Your task to perform on an android device: uninstall "Microsoft Excel" Image 0: 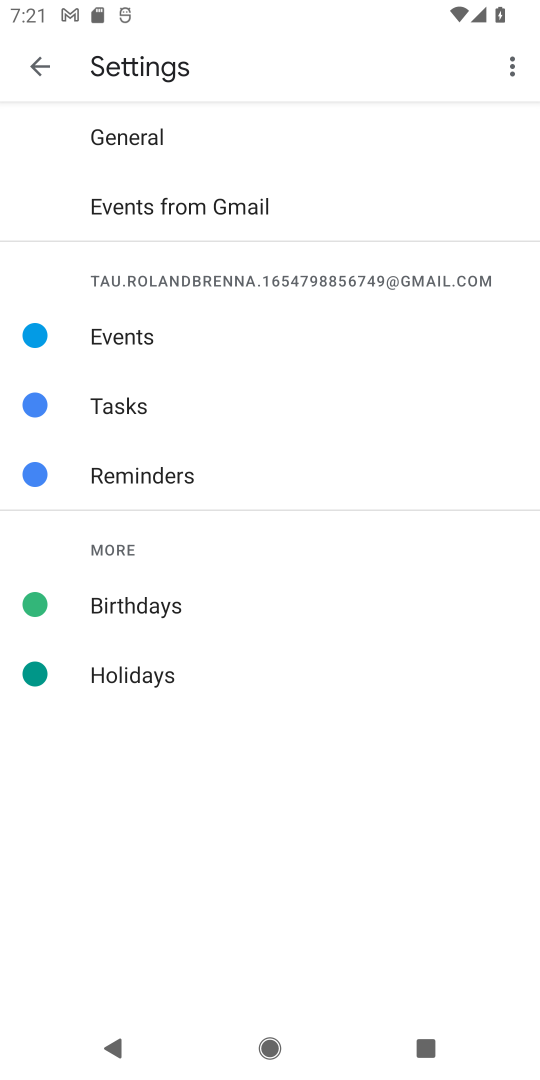
Step 0: press home button
Your task to perform on an android device: uninstall "Microsoft Excel" Image 1: 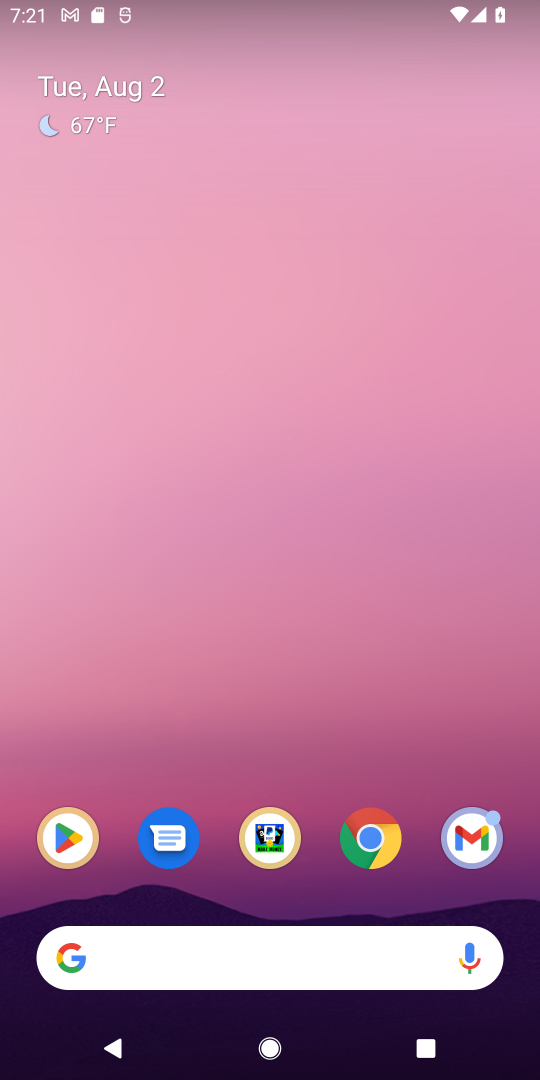
Step 1: click (55, 836)
Your task to perform on an android device: uninstall "Microsoft Excel" Image 2: 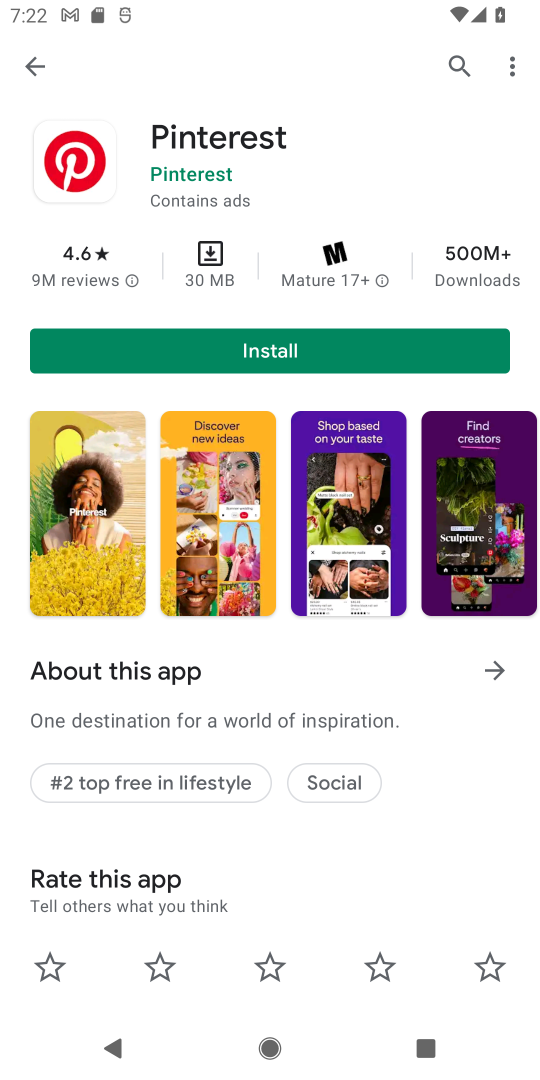
Step 2: click (449, 51)
Your task to perform on an android device: uninstall "Microsoft Excel" Image 3: 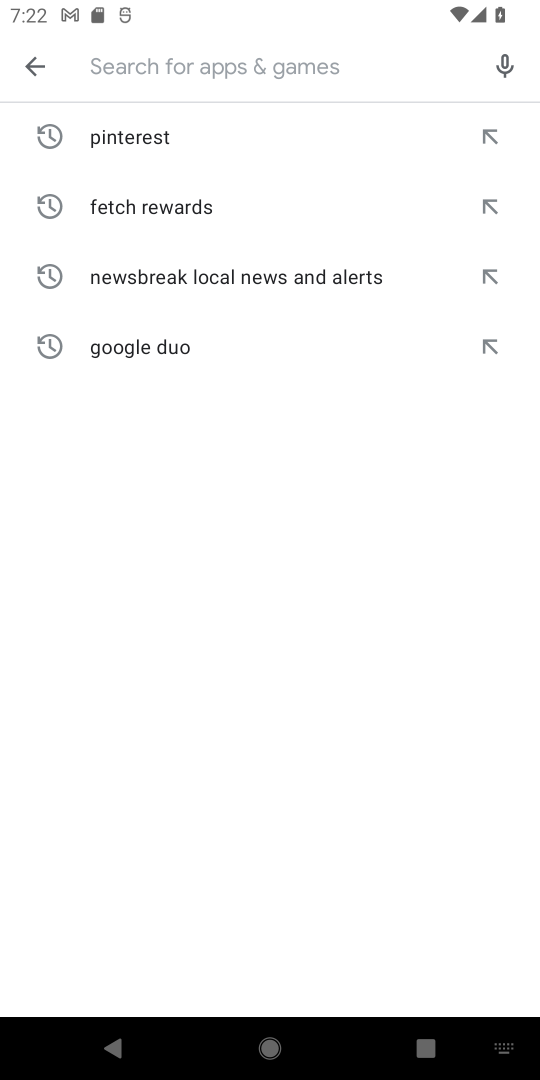
Step 3: type "microsoft excel"
Your task to perform on an android device: uninstall "Microsoft Excel" Image 4: 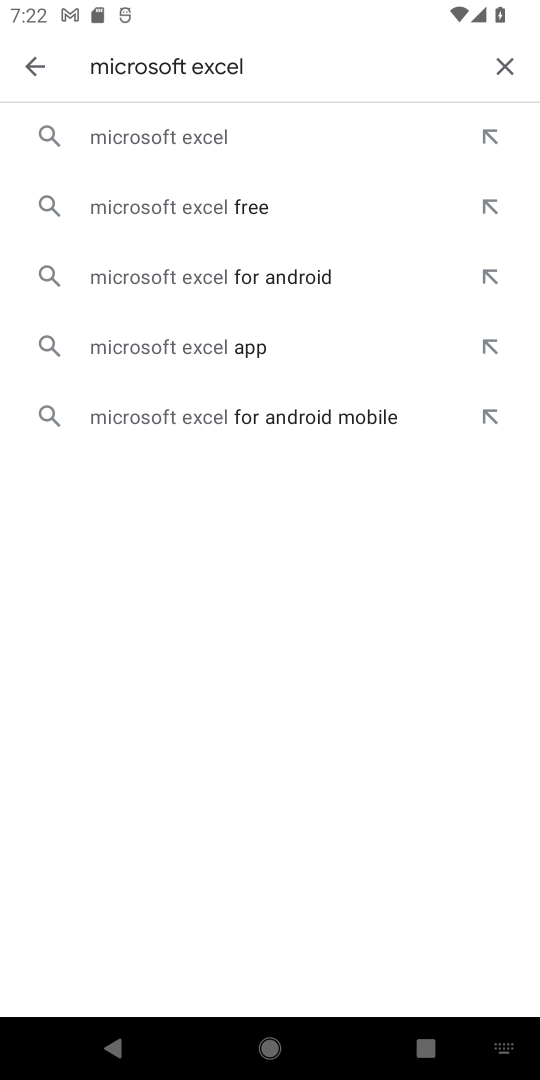
Step 4: click (257, 137)
Your task to perform on an android device: uninstall "Microsoft Excel" Image 5: 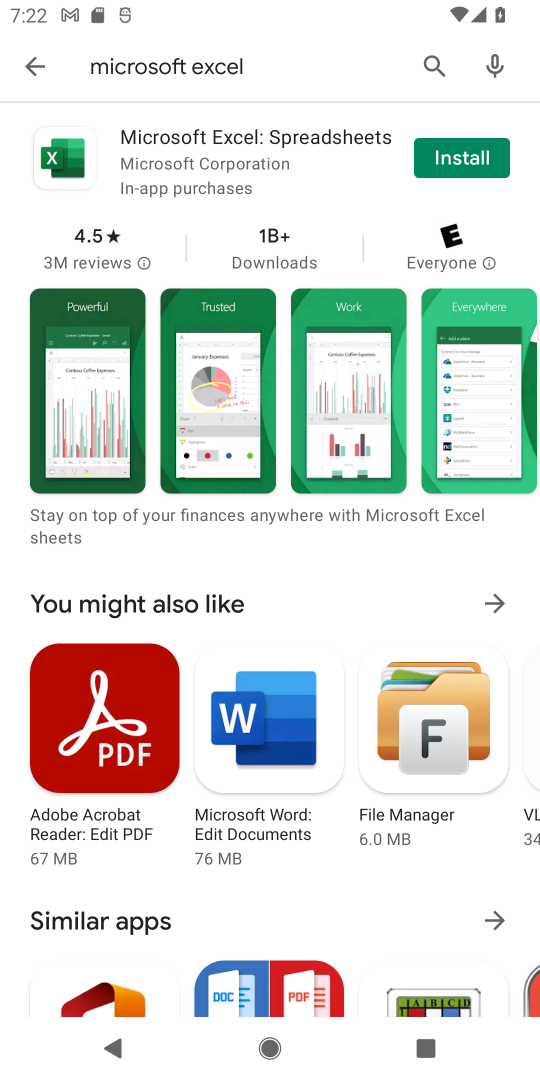
Step 5: click (220, 127)
Your task to perform on an android device: uninstall "Microsoft Excel" Image 6: 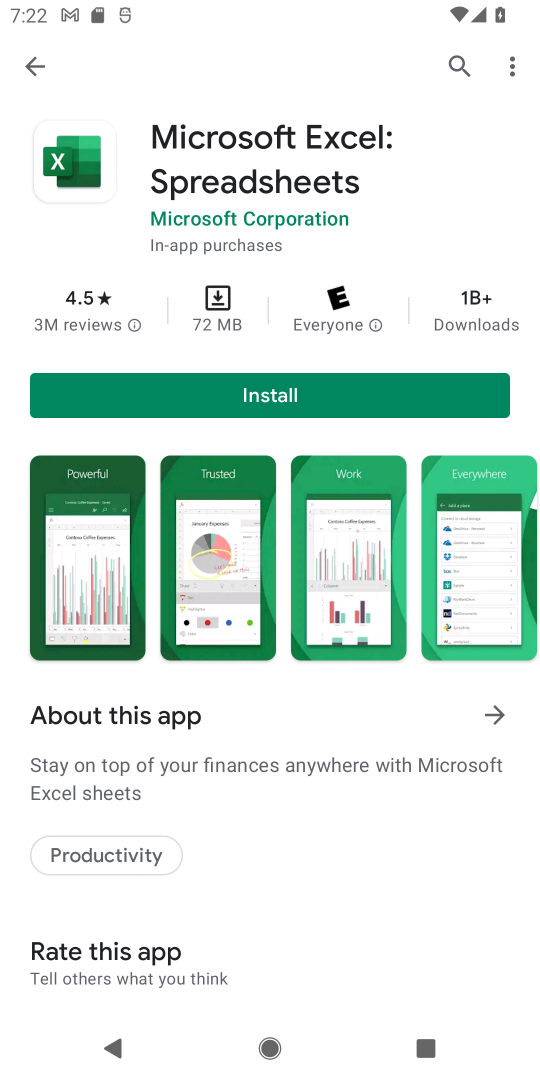
Step 6: task complete